Your task to perform on an android device: install app "Google Play services" Image 0: 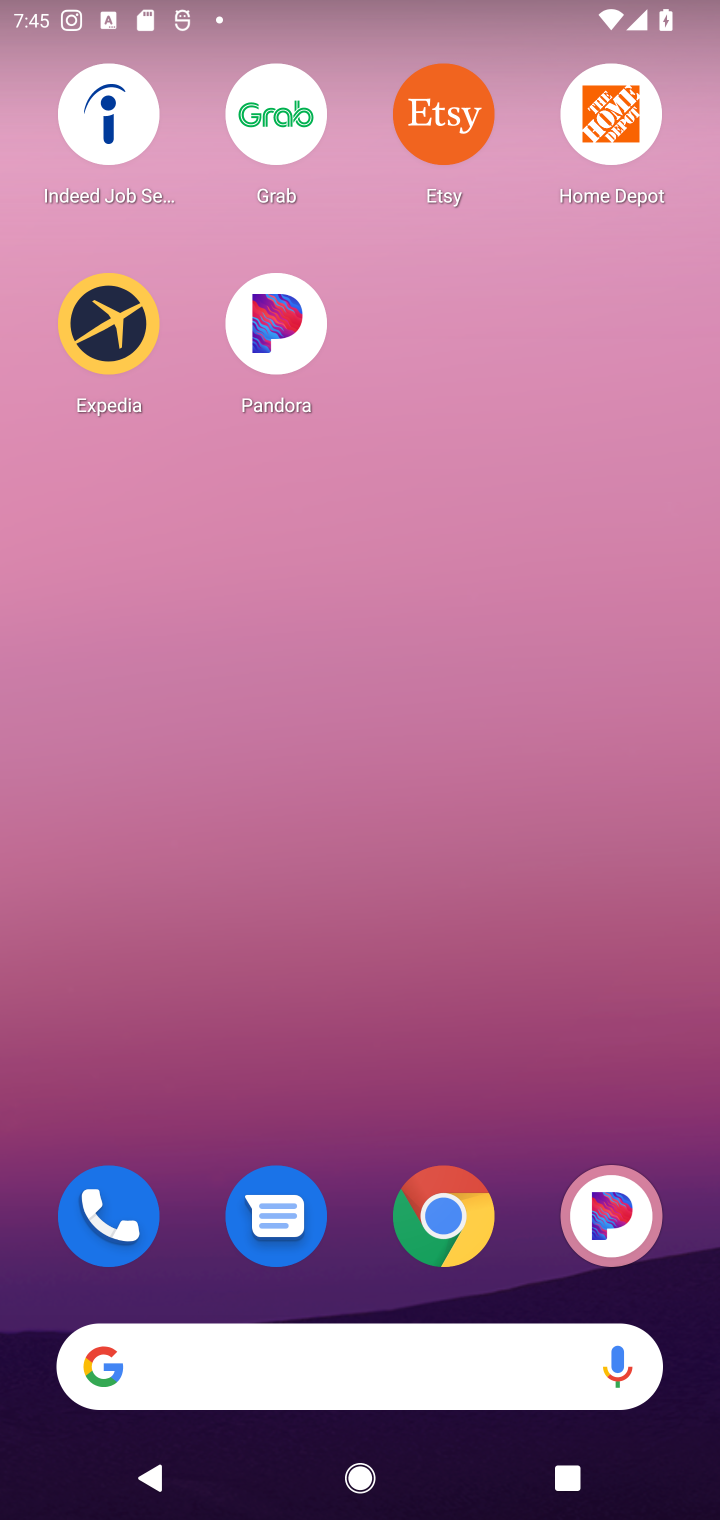
Step 0: drag from (385, 965) to (435, 226)
Your task to perform on an android device: install app "Google Play services" Image 1: 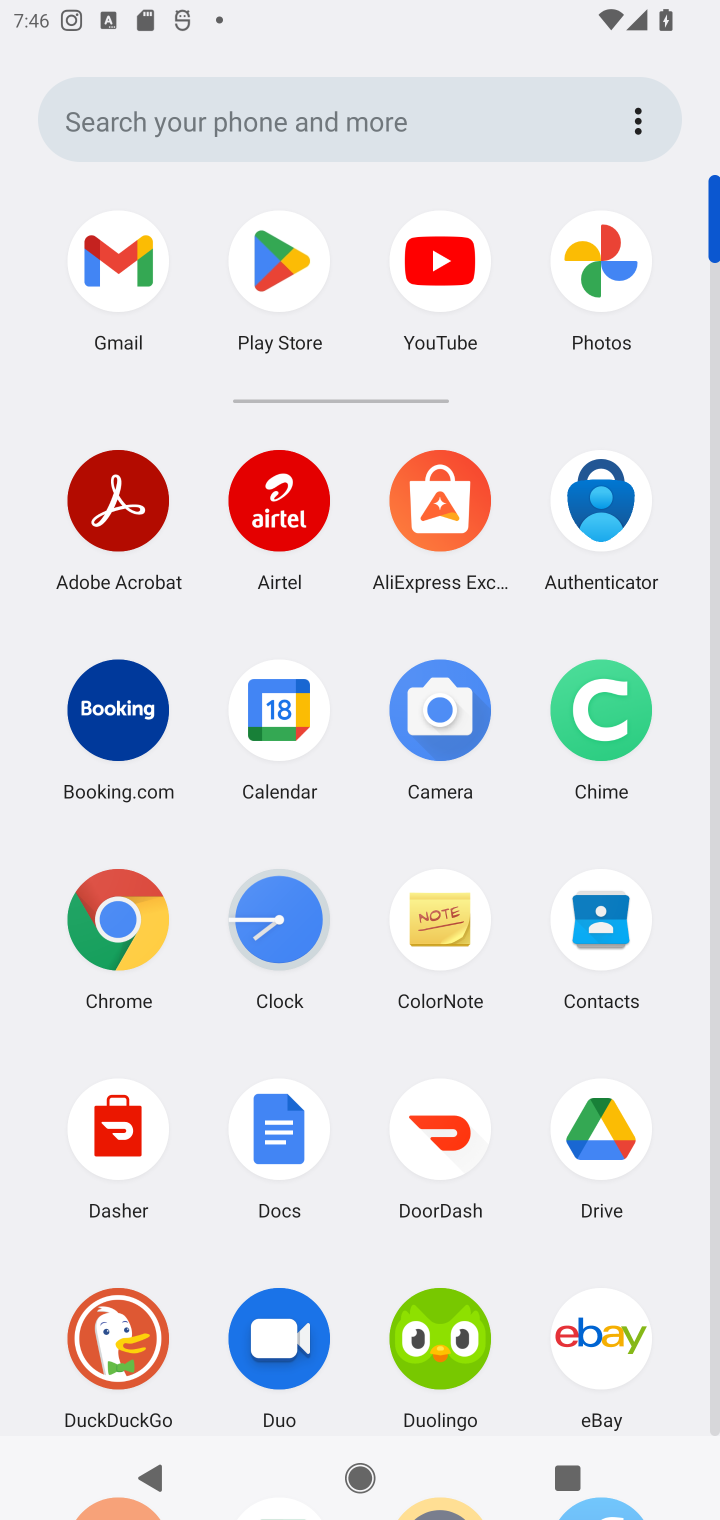
Step 1: click (291, 257)
Your task to perform on an android device: install app "Google Play services" Image 2: 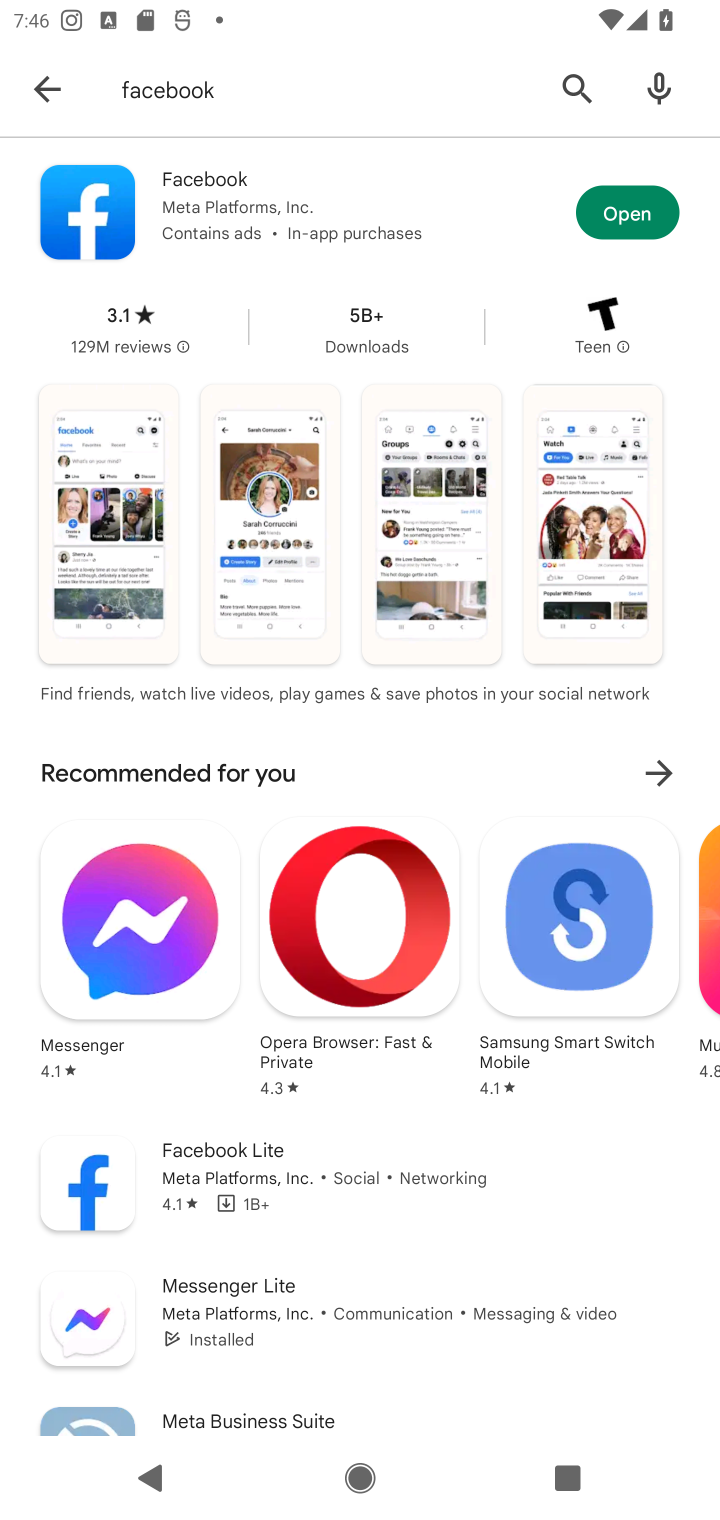
Step 2: click (580, 83)
Your task to perform on an android device: install app "Google Play services" Image 3: 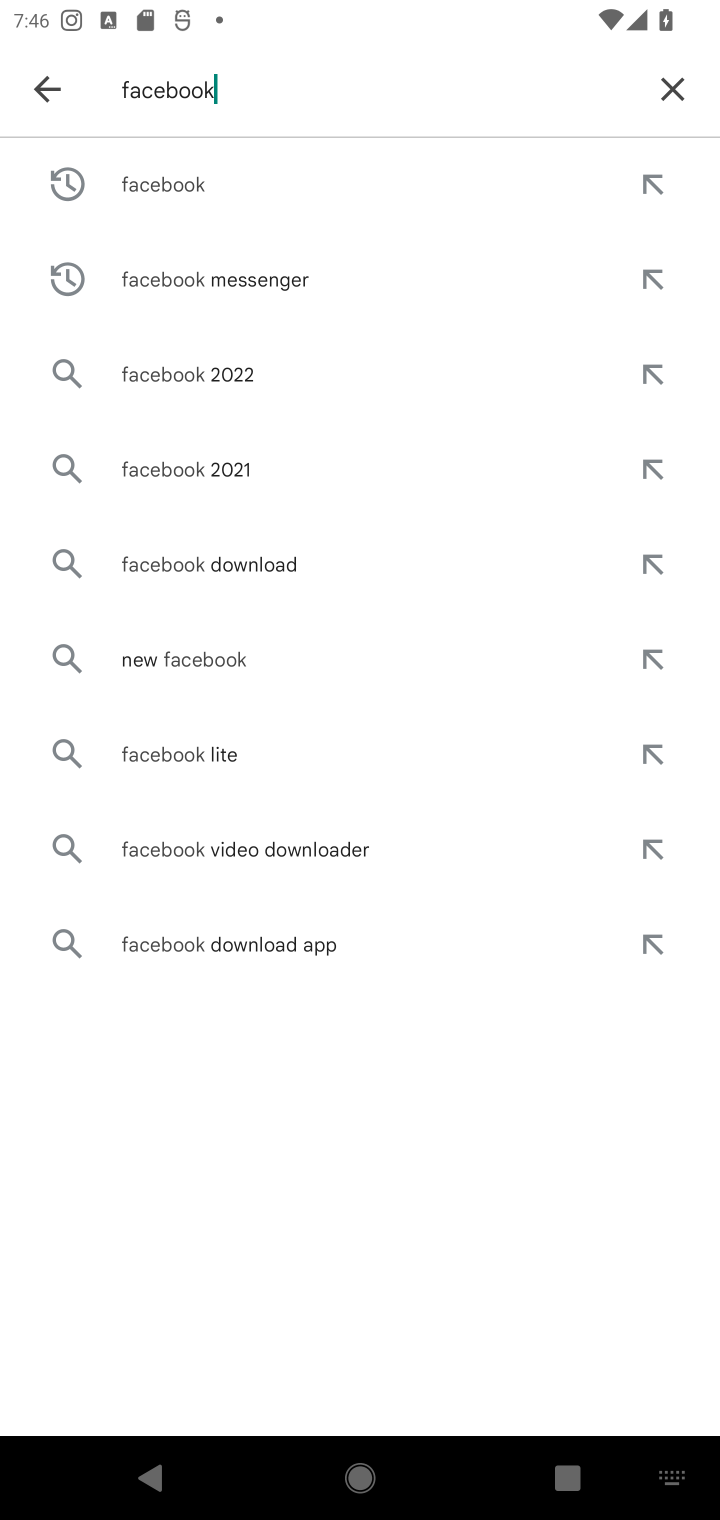
Step 3: click (660, 85)
Your task to perform on an android device: install app "Google Play services" Image 4: 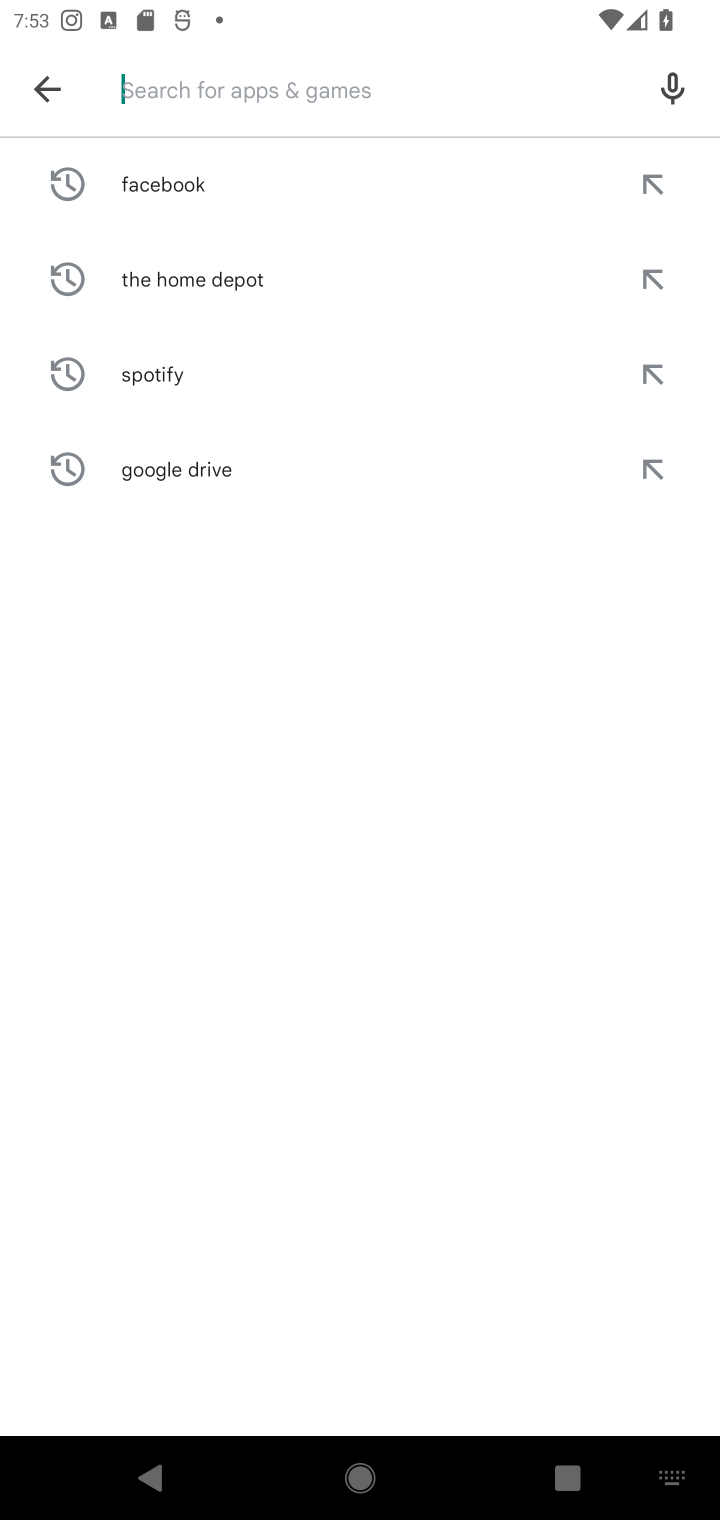
Step 4: press home button
Your task to perform on an android device: install app "Google Play services" Image 5: 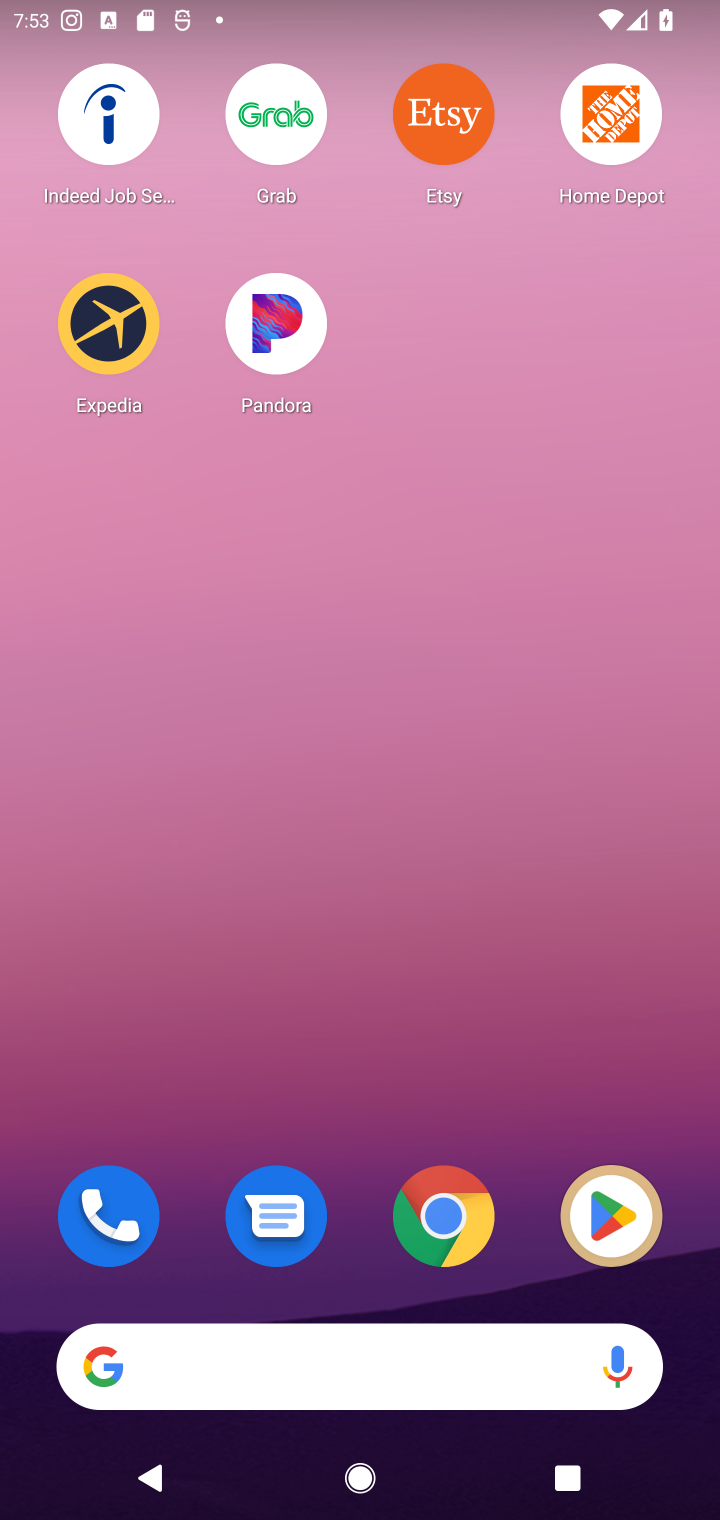
Step 5: click (608, 1215)
Your task to perform on an android device: install app "Google Play services" Image 6: 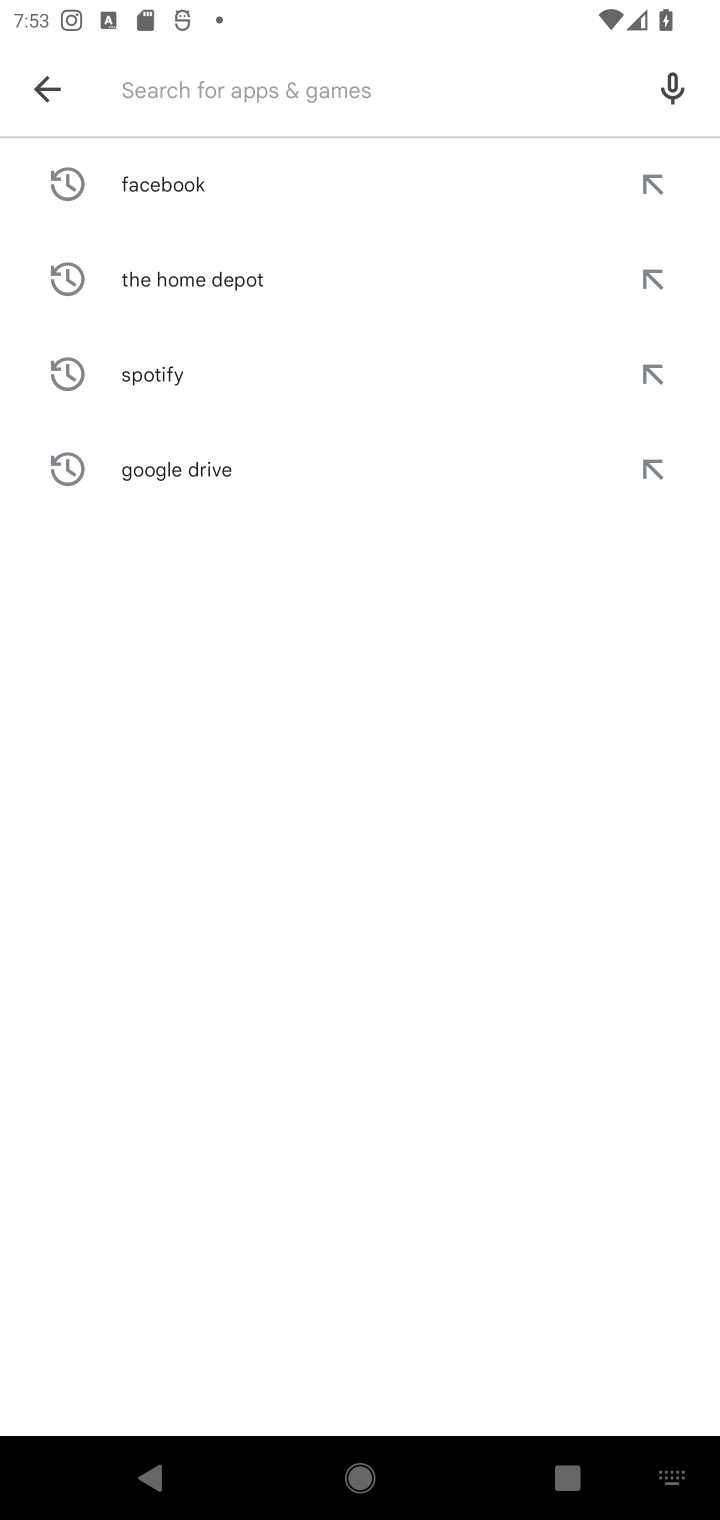
Step 6: click (267, 72)
Your task to perform on an android device: install app "Google Play services" Image 7: 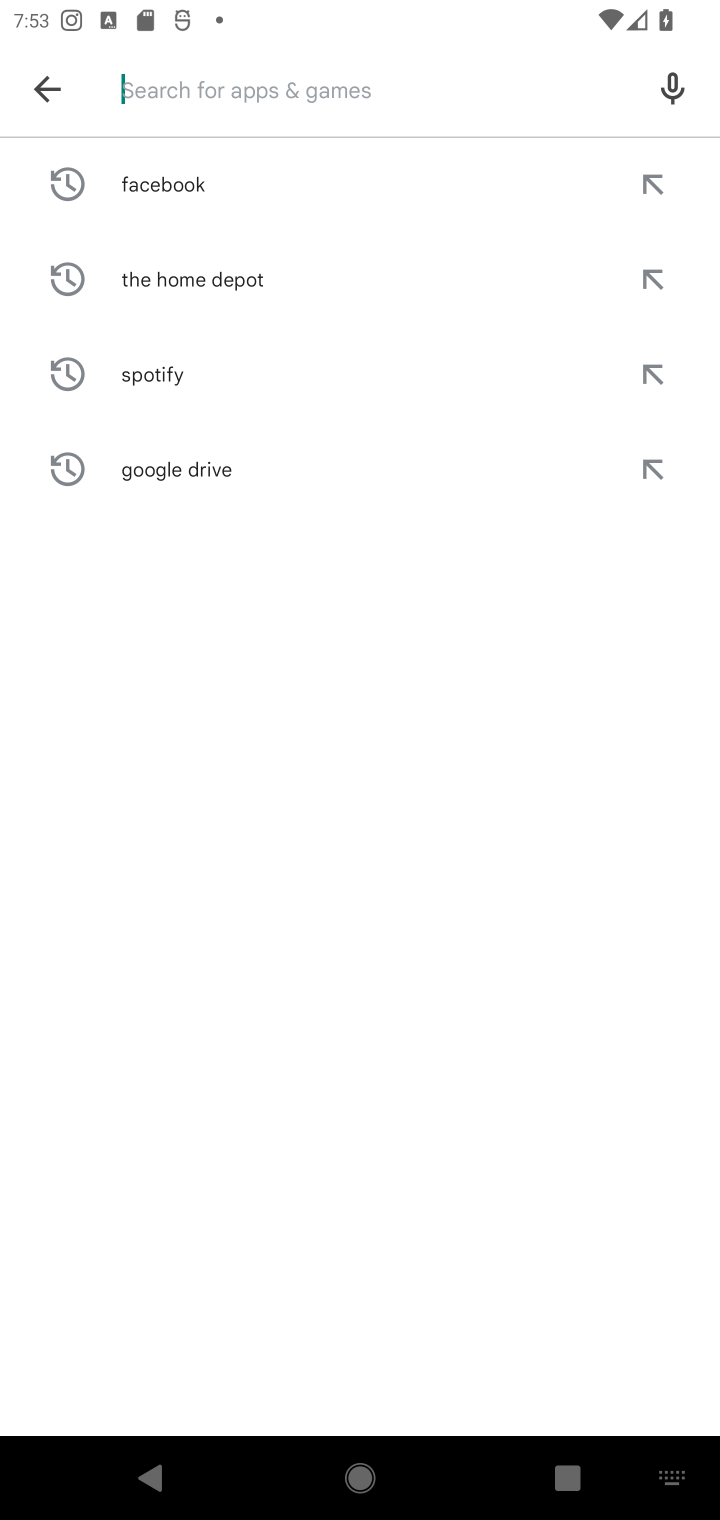
Step 7: type "Google Play services"
Your task to perform on an android device: install app "Google Play services" Image 8: 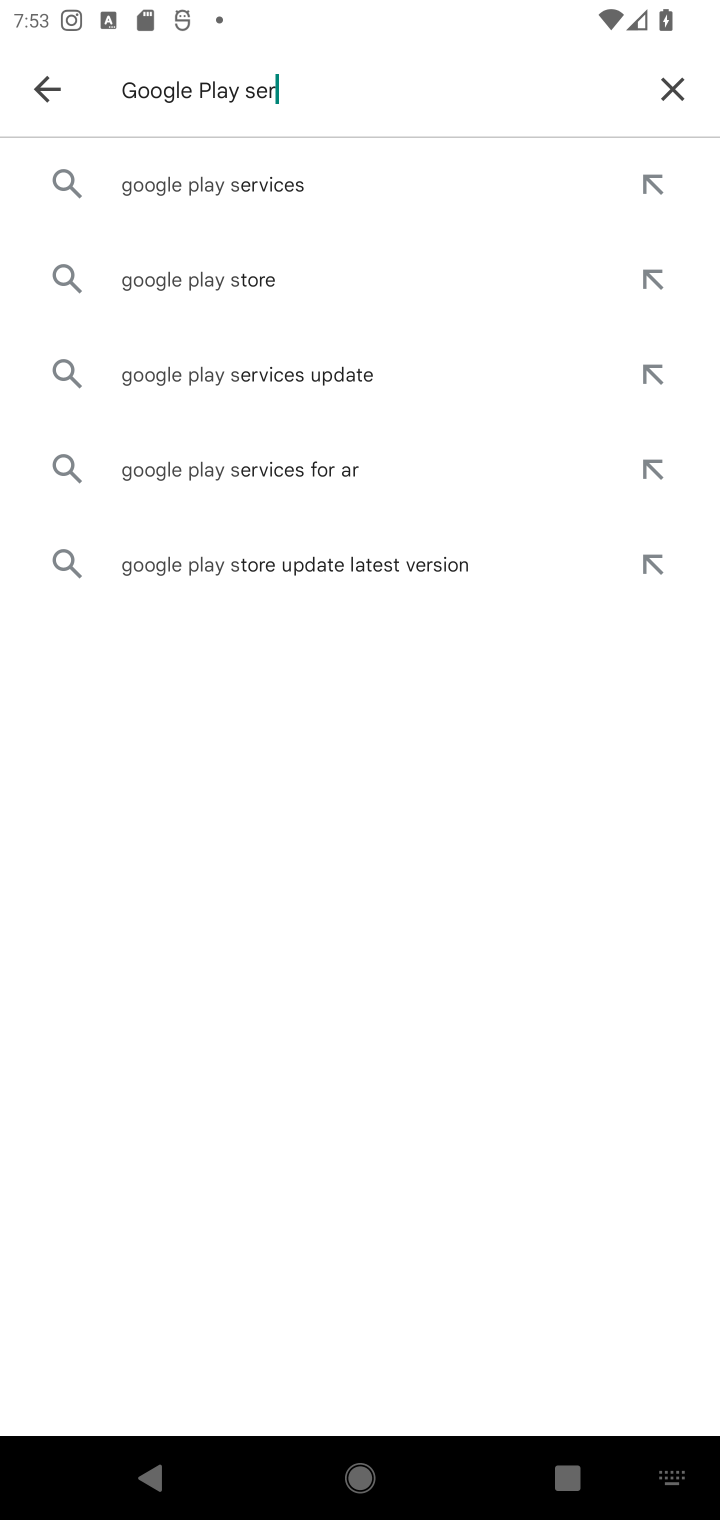
Step 8: type ""
Your task to perform on an android device: install app "Google Play services" Image 9: 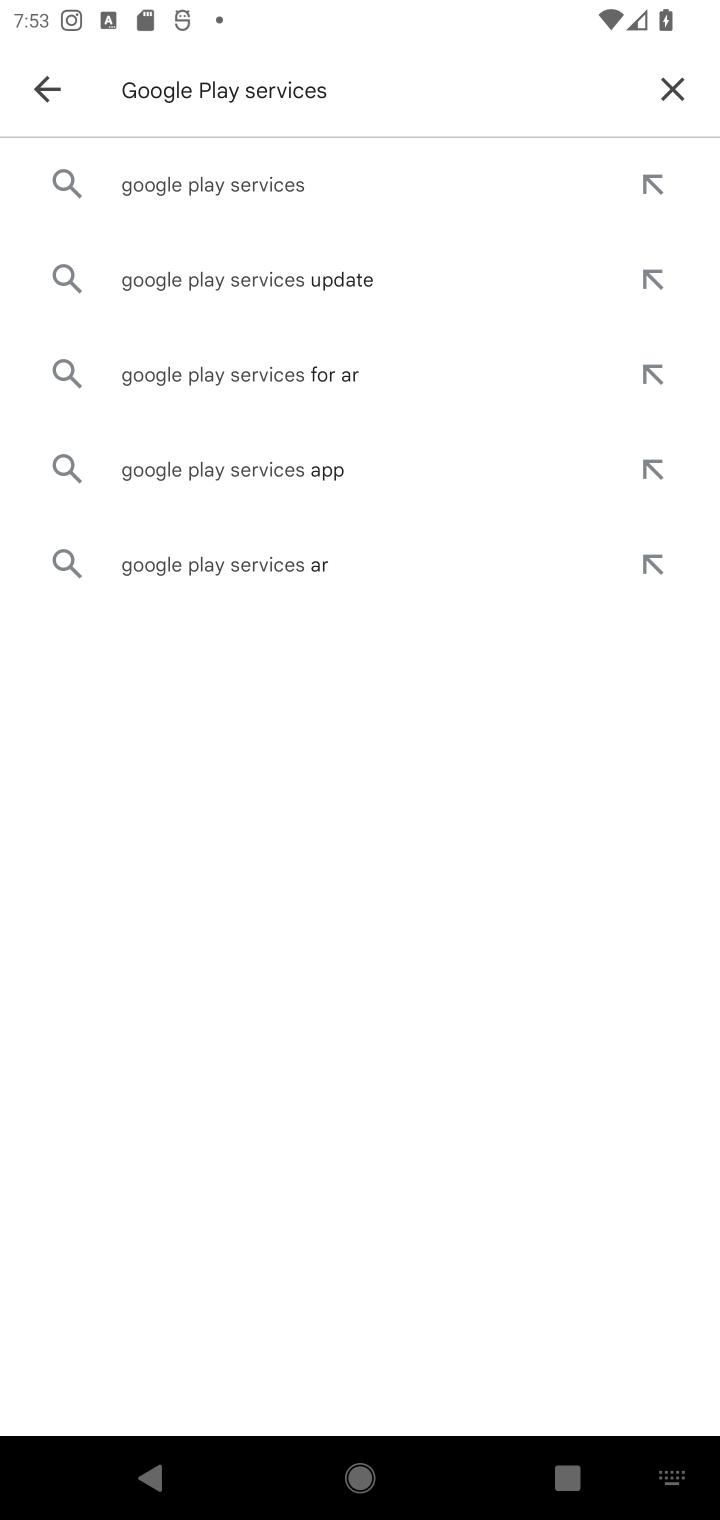
Step 9: click (420, 158)
Your task to perform on an android device: install app "Google Play services" Image 10: 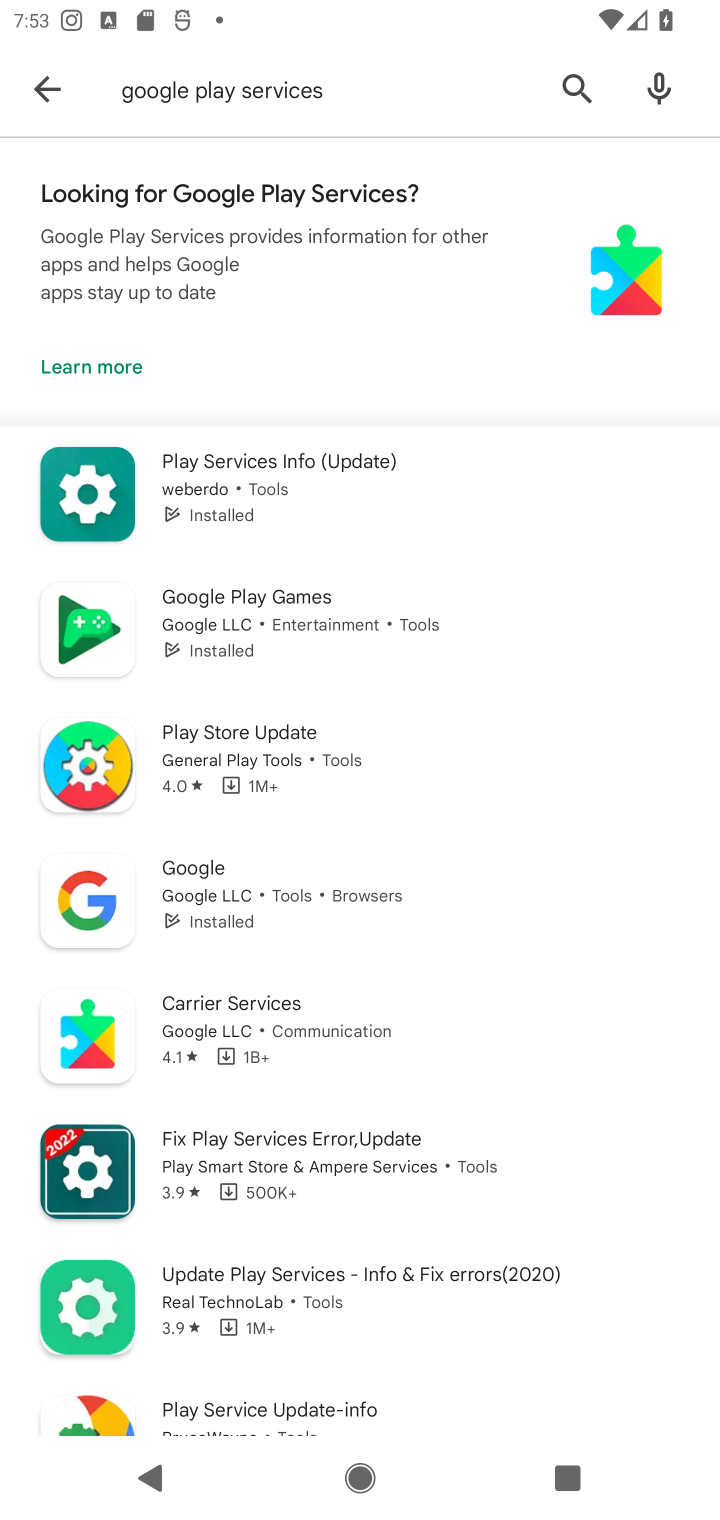
Step 10: click (304, 456)
Your task to perform on an android device: install app "Google Play services" Image 11: 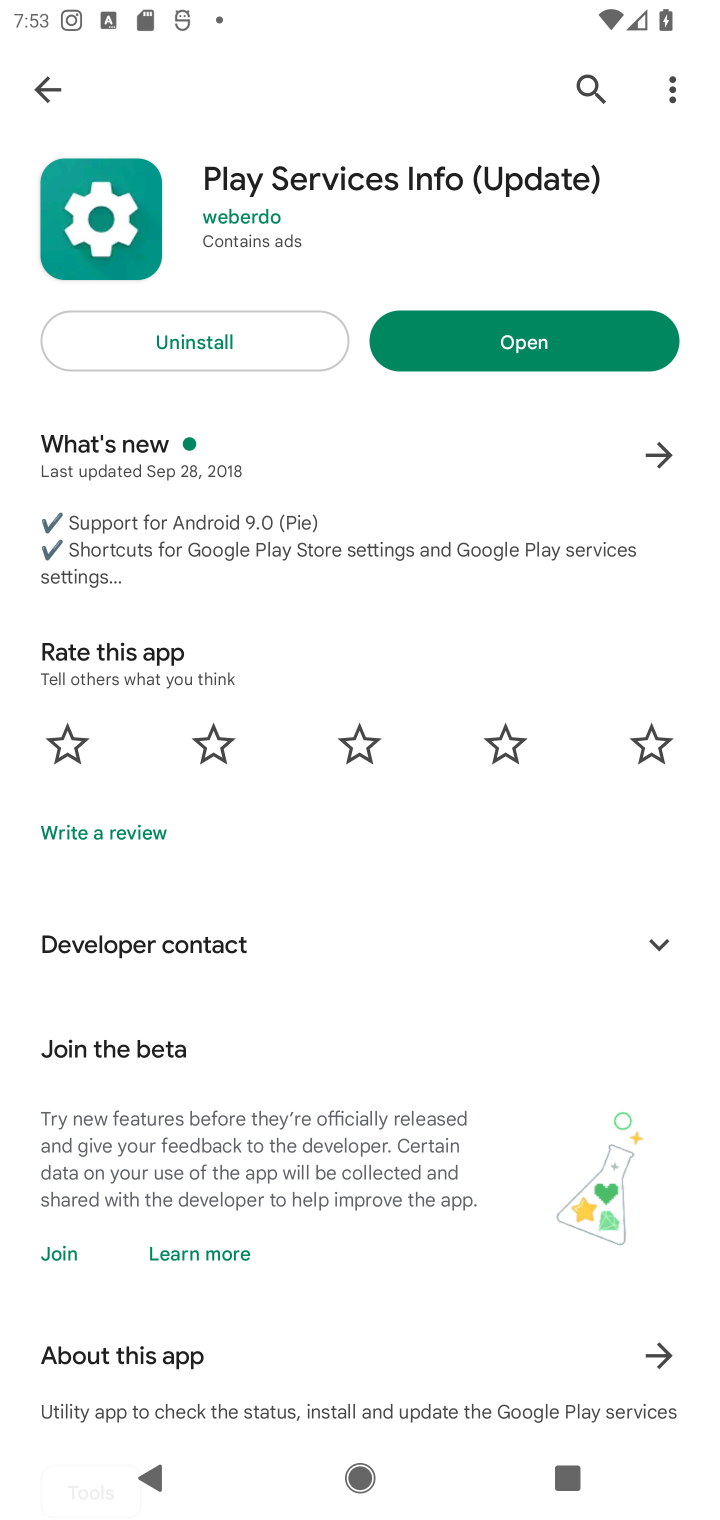
Step 11: task complete